Your task to perform on an android device: toggle location history Image 0: 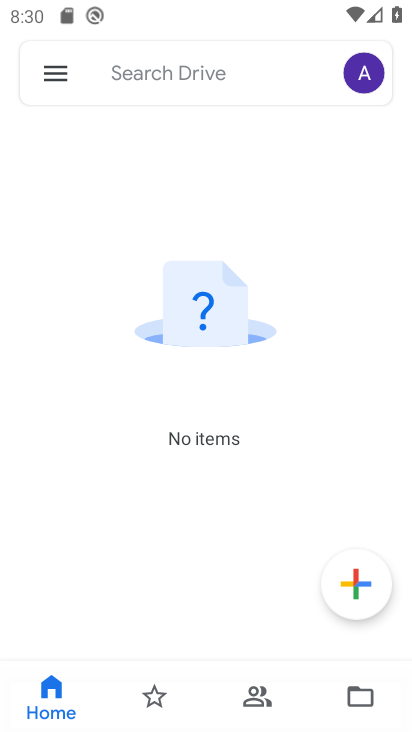
Step 0: press home button
Your task to perform on an android device: toggle location history Image 1: 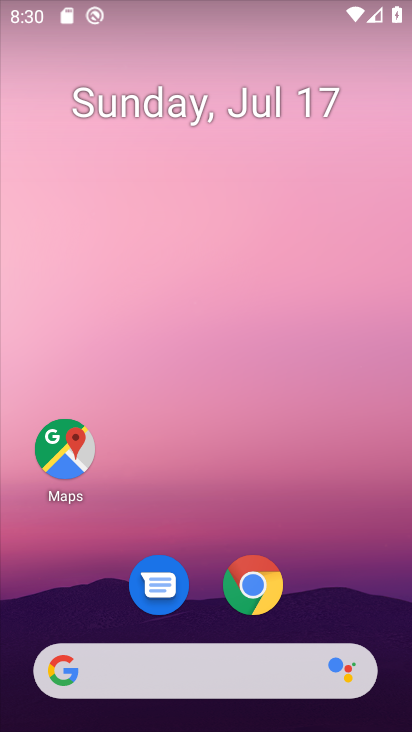
Step 1: drag from (336, 578) to (300, 20)
Your task to perform on an android device: toggle location history Image 2: 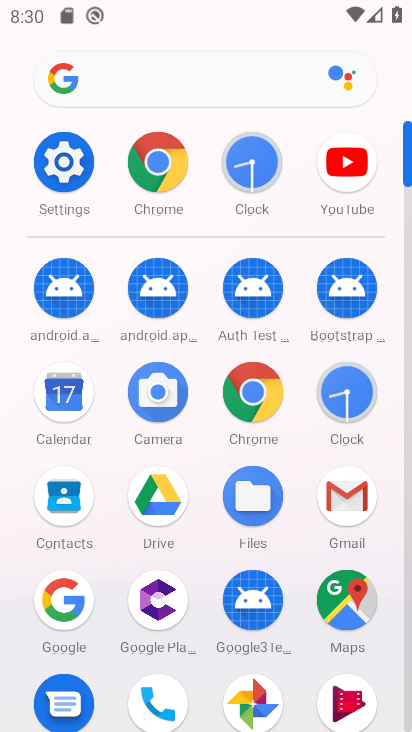
Step 2: click (58, 146)
Your task to perform on an android device: toggle location history Image 3: 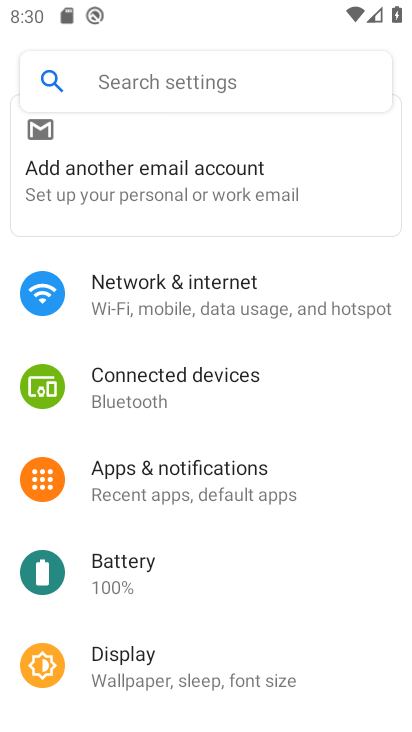
Step 3: drag from (248, 624) to (243, 144)
Your task to perform on an android device: toggle location history Image 4: 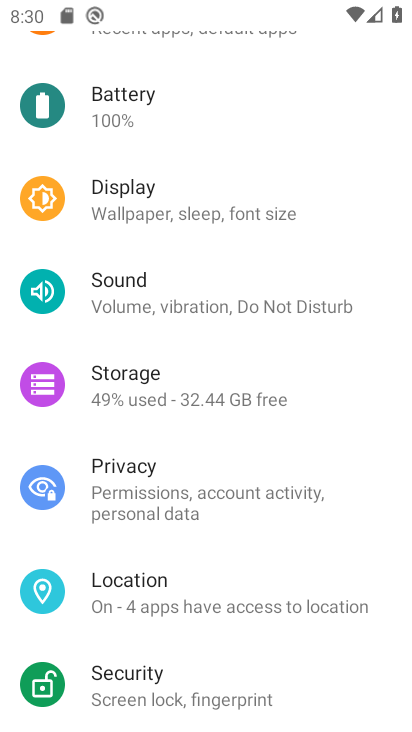
Step 4: click (253, 588)
Your task to perform on an android device: toggle location history Image 5: 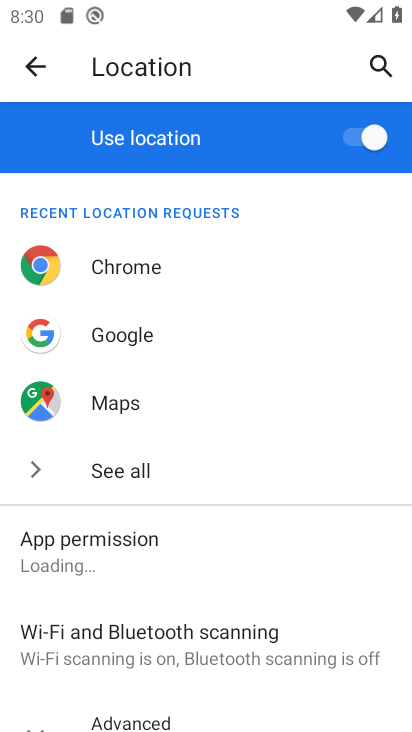
Step 5: drag from (253, 585) to (233, 384)
Your task to perform on an android device: toggle location history Image 6: 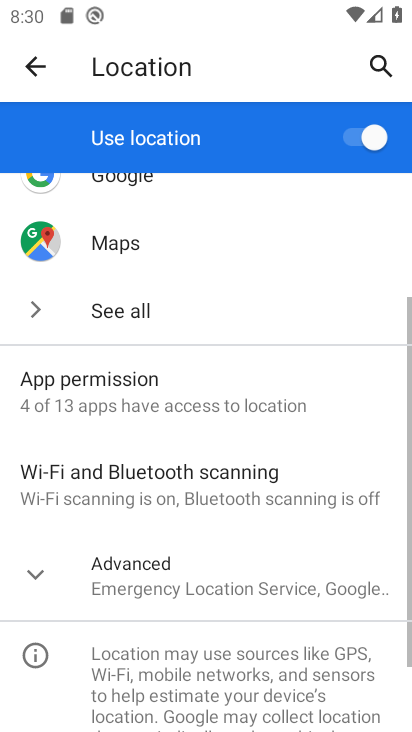
Step 6: click (27, 572)
Your task to perform on an android device: toggle location history Image 7: 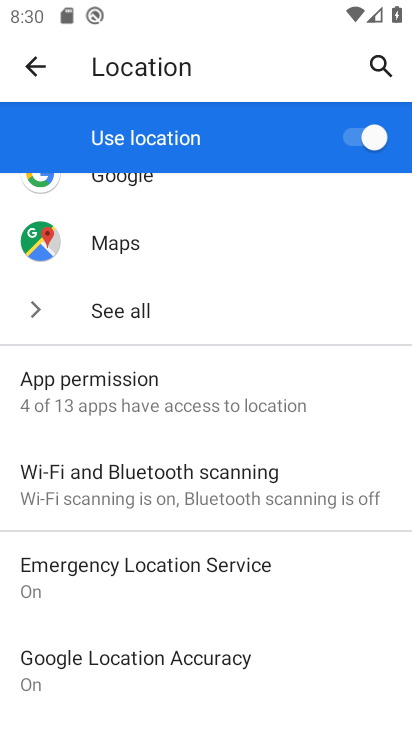
Step 7: drag from (206, 613) to (256, 281)
Your task to perform on an android device: toggle location history Image 8: 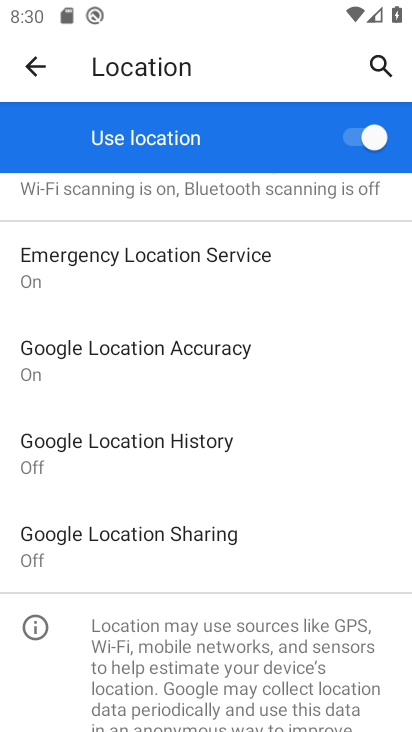
Step 8: click (211, 445)
Your task to perform on an android device: toggle location history Image 9: 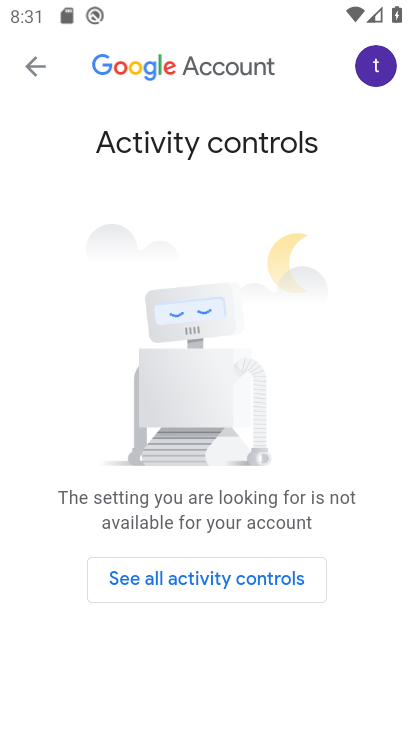
Step 9: click (240, 575)
Your task to perform on an android device: toggle location history Image 10: 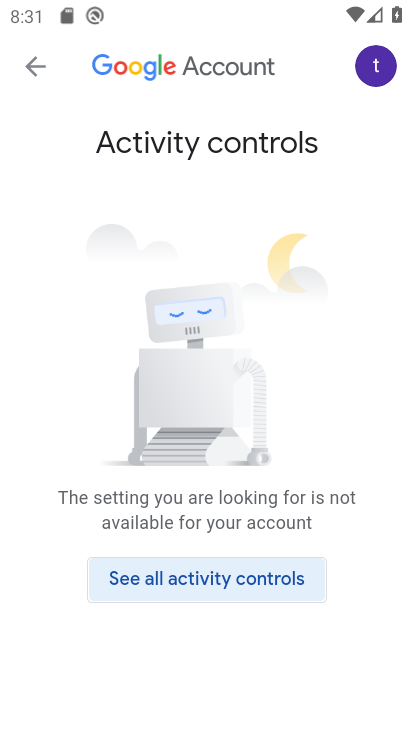
Step 10: click (240, 576)
Your task to perform on an android device: toggle location history Image 11: 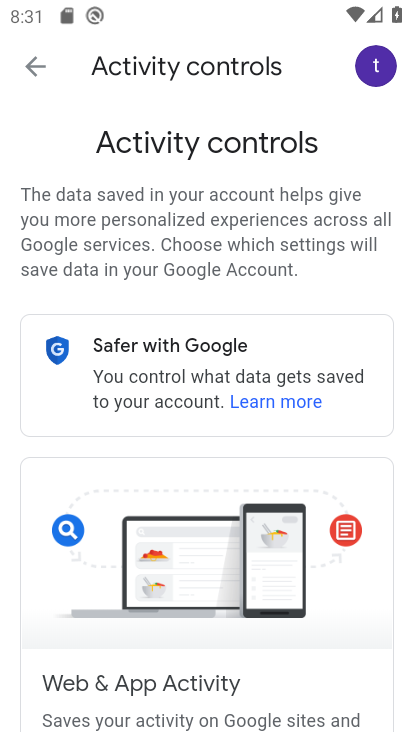
Step 11: drag from (276, 636) to (253, 241)
Your task to perform on an android device: toggle location history Image 12: 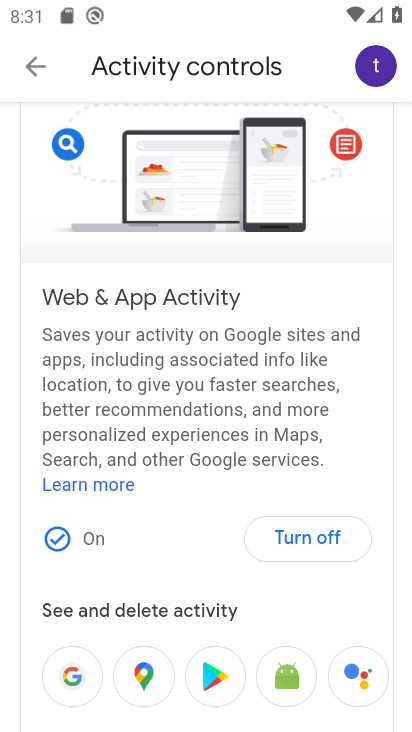
Step 12: click (305, 538)
Your task to perform on an android device: toggle location history Image 13: 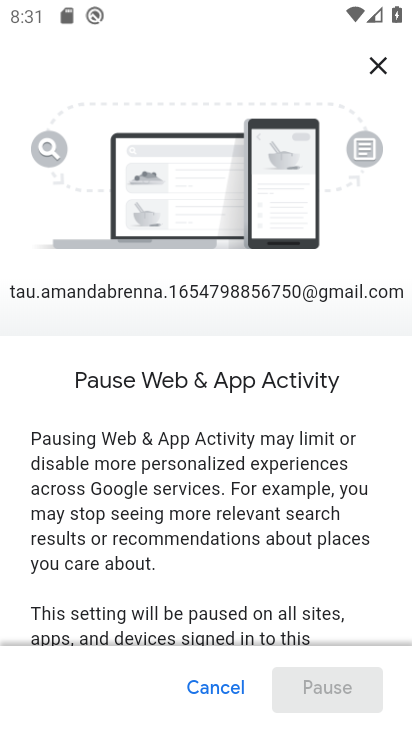
Step 13: drag from (297, 608) to (288, 294)
Your task to perform on an android device: toggle location history Image 14: 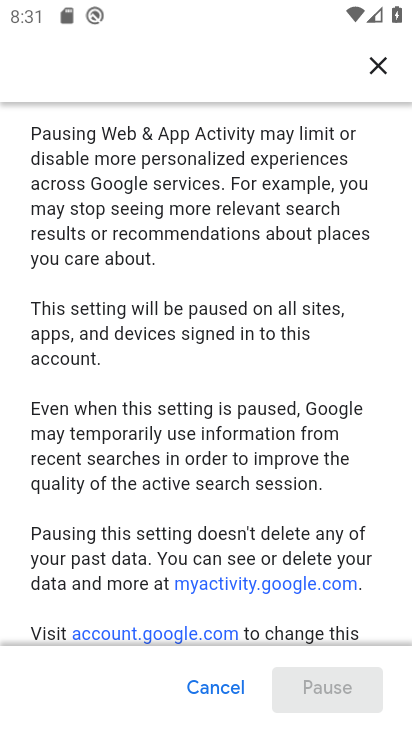
Step 14: drag from (270, 522) to (238, 168)
Your task to perform on an android device: toggle location history Image 15: 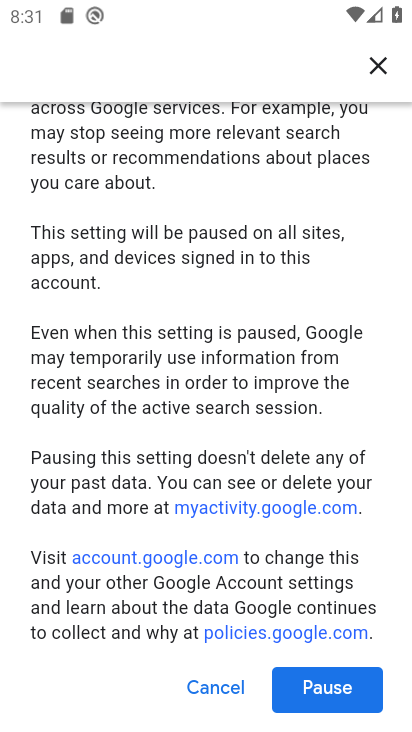
Step 15: click (341, 683)
Your task to perform on an android device: toggle location history Image 16: 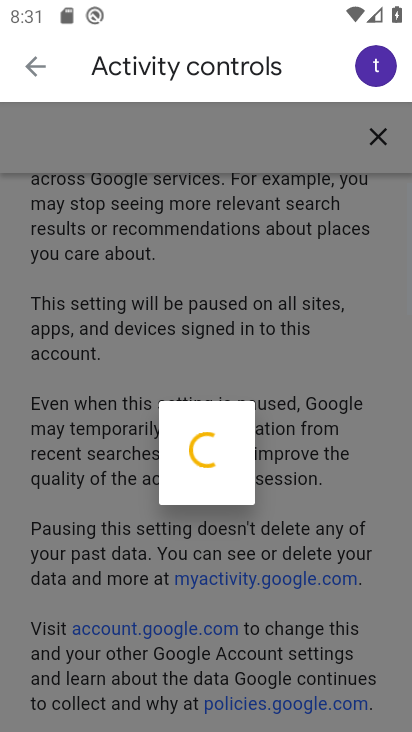
Step 16: click (341, 680)
Your task to perform on an android device: toggle location history Image 17: 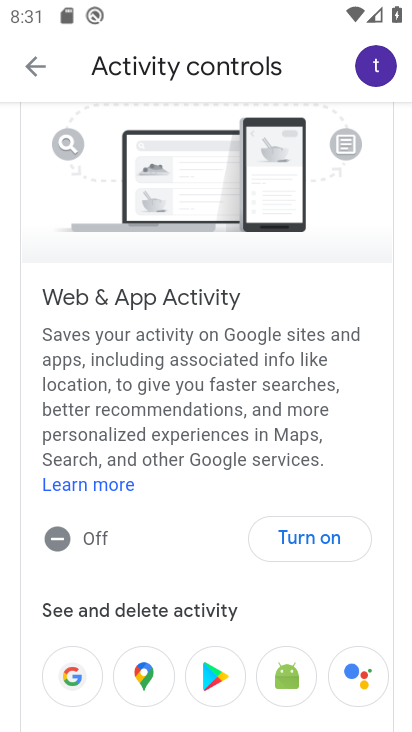
Step 17: click (341, 683)
Your task to perform on an android device: toggle location history Image 18: 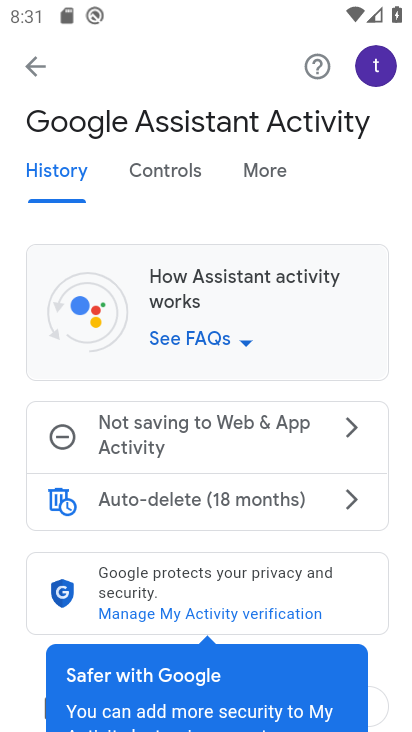
Step 18: click (44, 66)
Your task to perform on an android device: toggle location history Image 19: 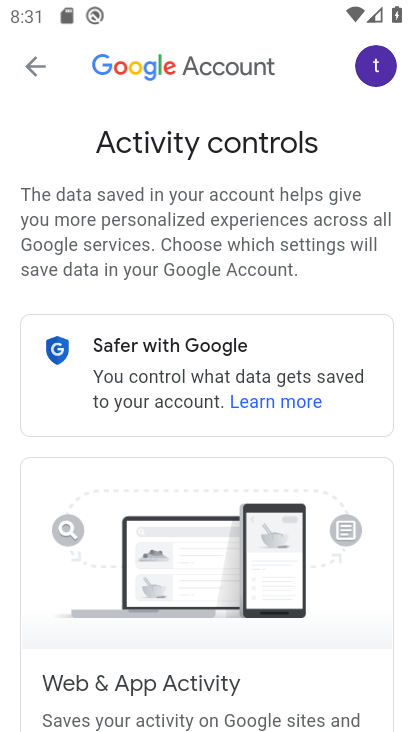
Step 19: task complete